Your task to perform on an android device: Do I have any events this weekend? Image 0: 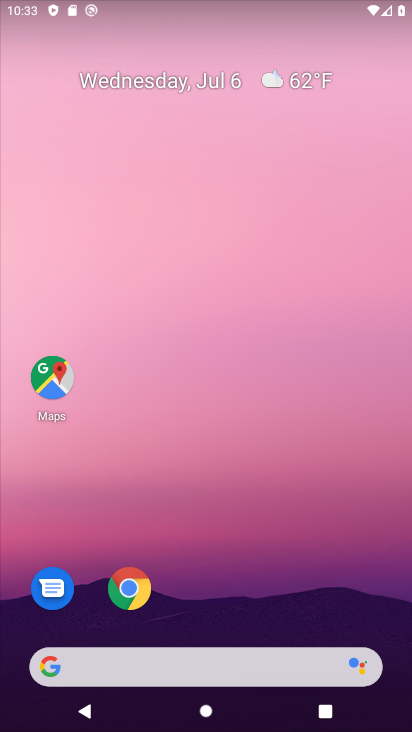
Step 0: drag from (382, 612) to (307, 166)
Your task to perform on an android device: Do I have any events this weekend? Image 1: 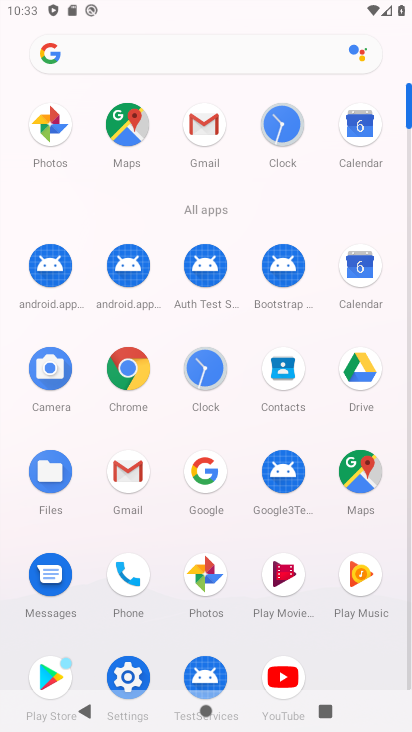
Step 1: click (358, 271)
Your task to perform on an android device: Do I have any events this weekend? Image 2: 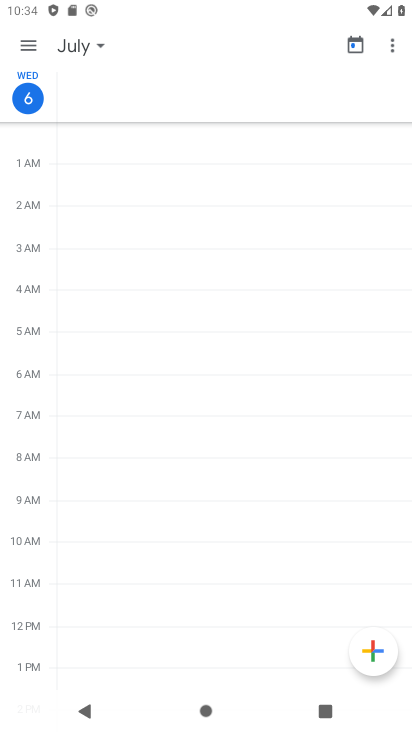
Step 2: click (24, 40)
Your task to perform on an android device: Do I have any events this weekend? Image 3: 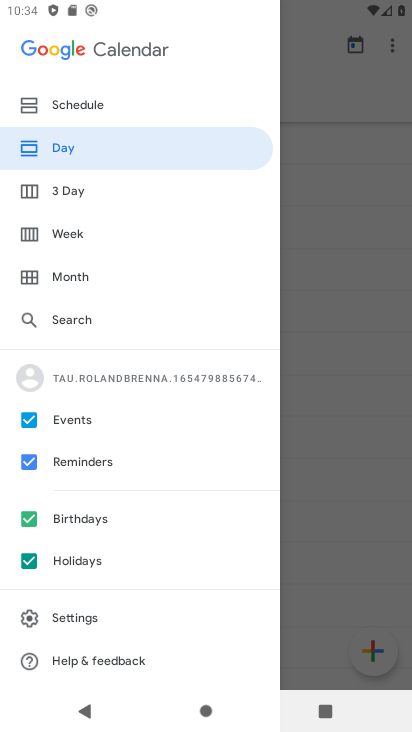
Step 3: click (69, 233)
Your task to perform on an android device: Do I have any events this weekend? Image 4: 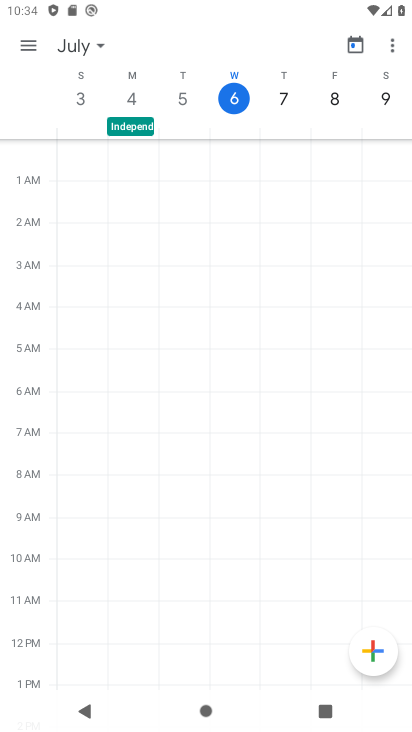
Step 4: task complete